Your task to perform on an android device: Open Chrome and go to settings Image 0: 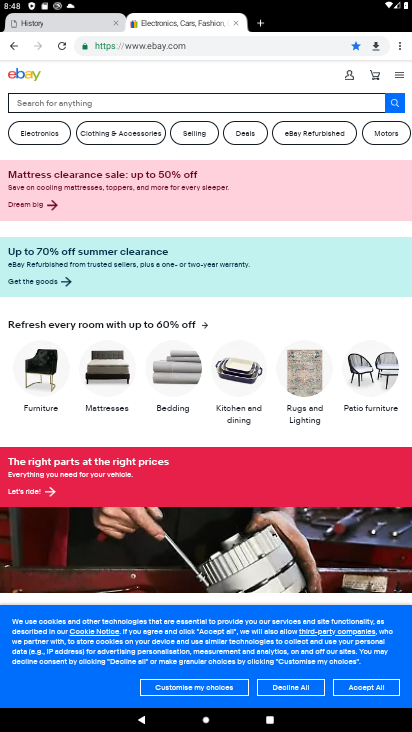
Step 0: press home button
Your task to perform on an android device: Open Chrome and go to settings Image 1: 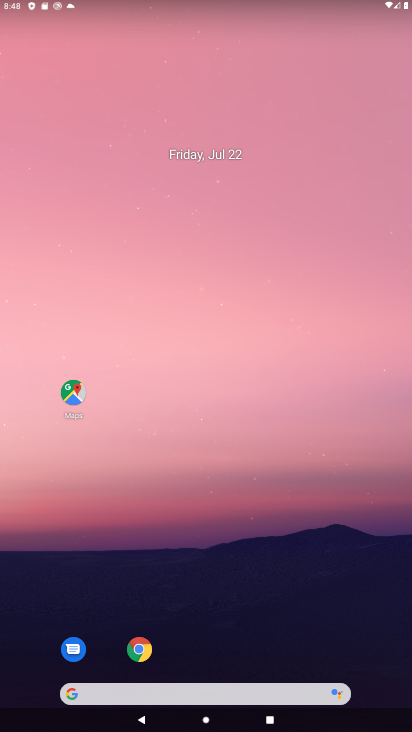
Step 1: drag from (235, 531) to (308, 153)
Your task to perform on an android device: Open Chrome and go to settings Image 2: 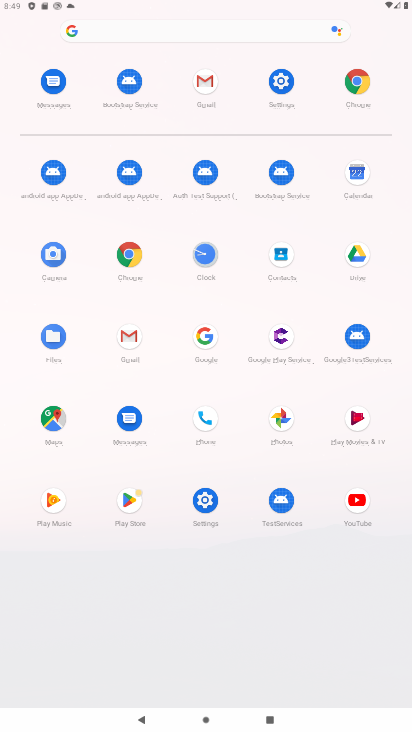
Step 2: click (351, 77)
Your task to perform on an android device: Open Chrome and go to settings Image 3: 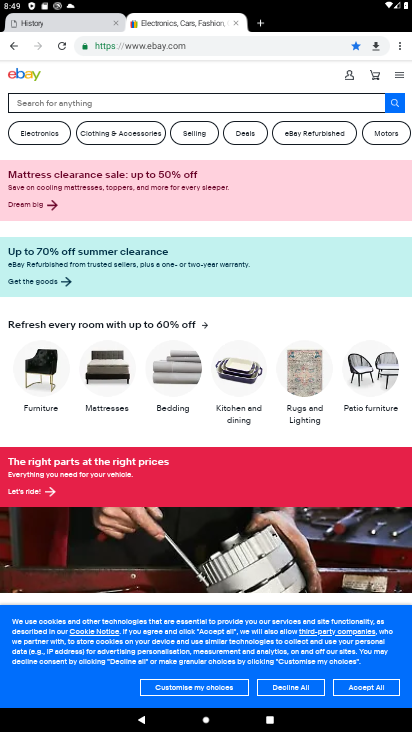
Step 3: press home button
Your task to perform on an android device: Open Chrome and go to settings Image 4: 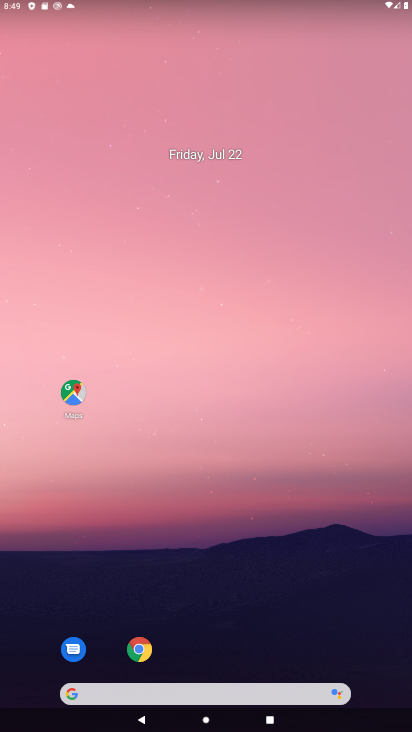
Step 4: drag from (249, 528) to (258, 78)
Your task to perform on an android device: Open Chrome and go to settings Image 5: 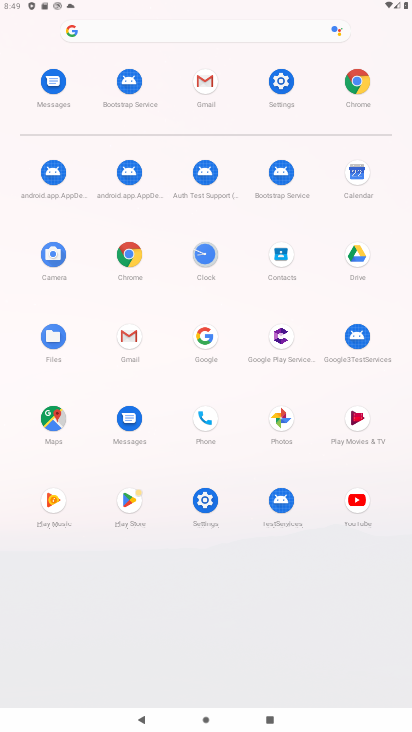
Step 5: click (203, 505)
Your task to perform on an android device: Open Chrome and go to settings Image 6: 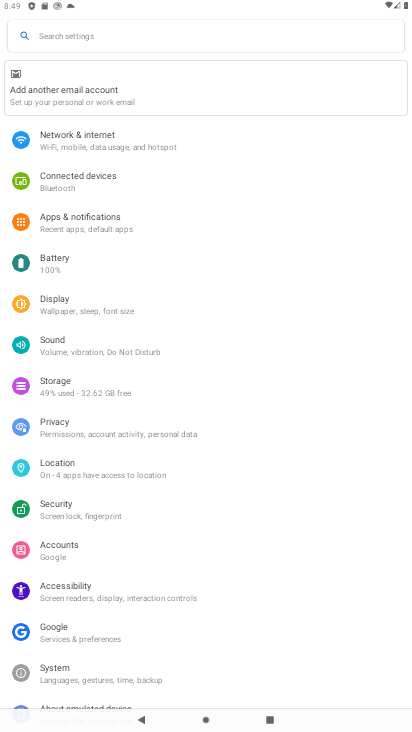
Step 6: task complete